Your task to perform on an android device: Go to sound settings Image 0: 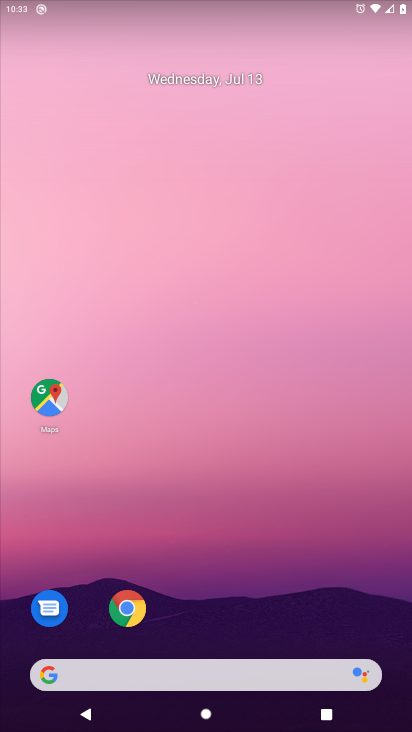
Step 0: drag from (69, 590) to (233, 200)
Your task to perform on an android device: Go to sound settings Image 1: 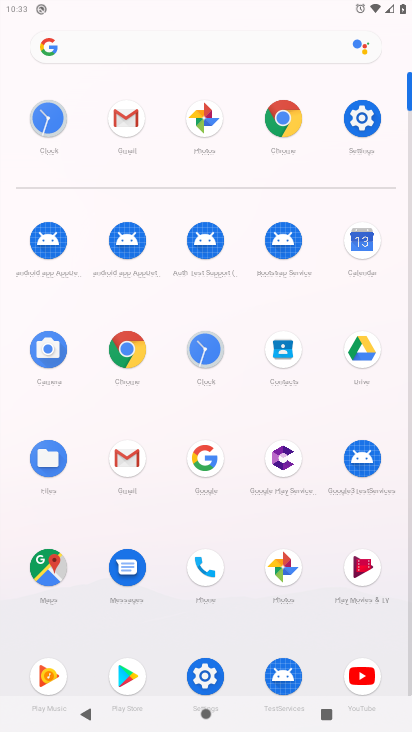
Step 1: click (205, 675)
Your task to perform on an android device: Go to sound settings Image 2: 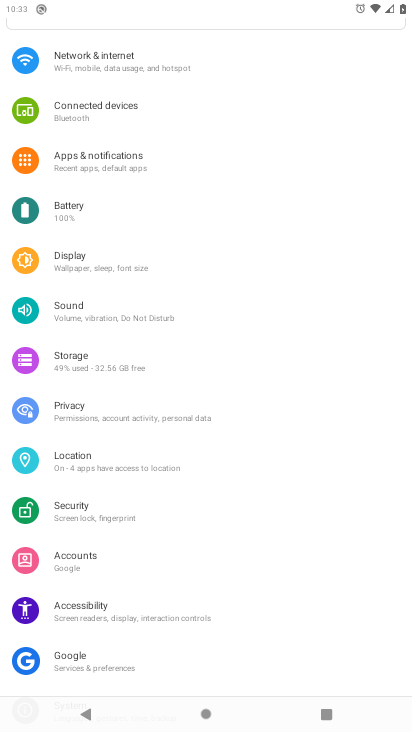
Step 2: click (66, 304)
Your task to perform on an android device: Go to sound settings Image 3: 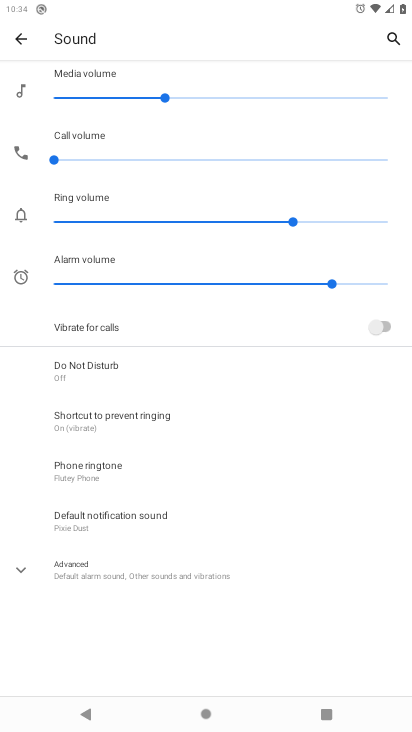
Step 3: task complete